Your task to perform on an android device: Is it going to rain this weekend? Image 0: 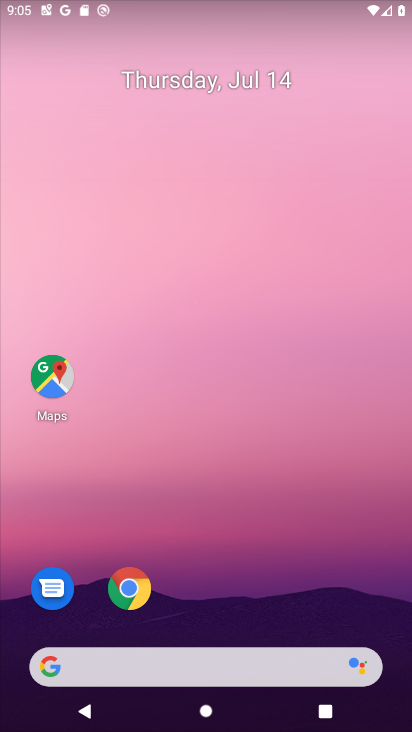
Step 0: drag from (254, 592) to (220, 230)
Your task to perform on an android device: Is it going to rain this weekend? Image 1: 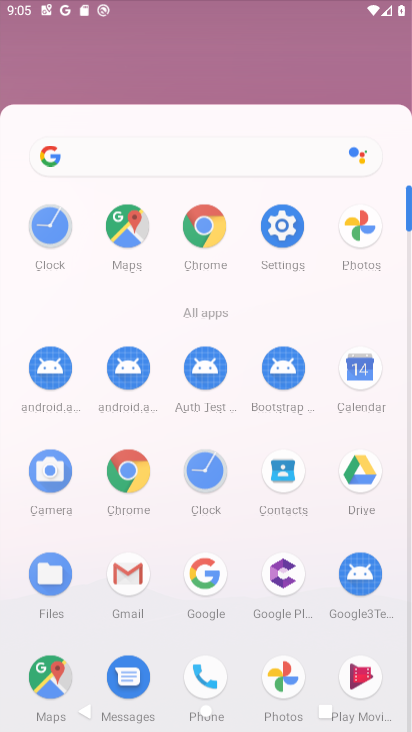
Step 1: drag from (252, 493) to (203, 144)
Your task to perform on an android device: Is it going to rain this weekend? Image 2: 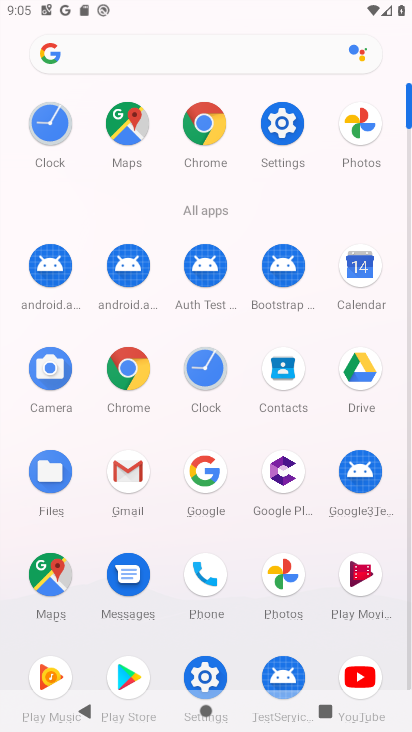
Step 2: click (210, 127)
Your task to perform on an android device: Is it going to rain this weekend? Image 3: 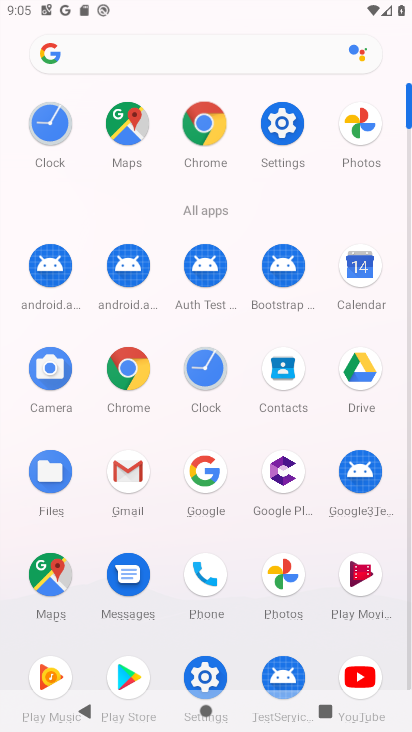
Step 3: click (209, 126)
Your task to perform on an android device: Is it going to rain this weekend? Image 4: 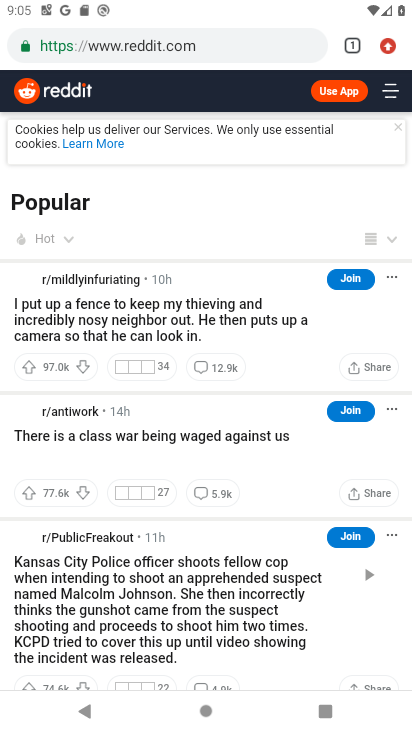
Step 4: click (130, 41)
Your task to perform on an android device: Is it going to rain this weekend? Image 5: 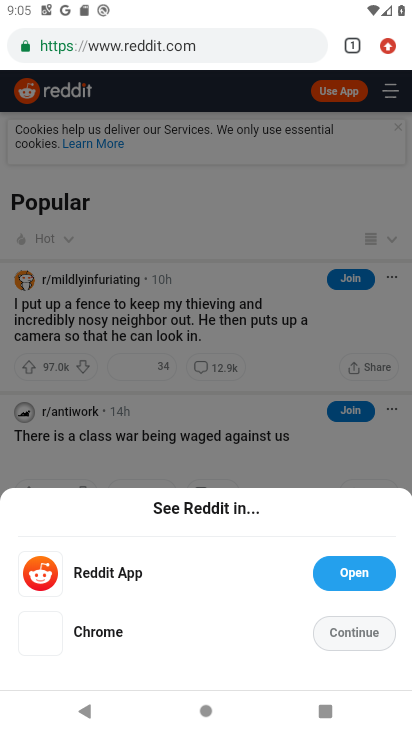
Step 5: click (130, 41)
Your task to perform on an android device: Is it going to rain this weekend? Image 6: 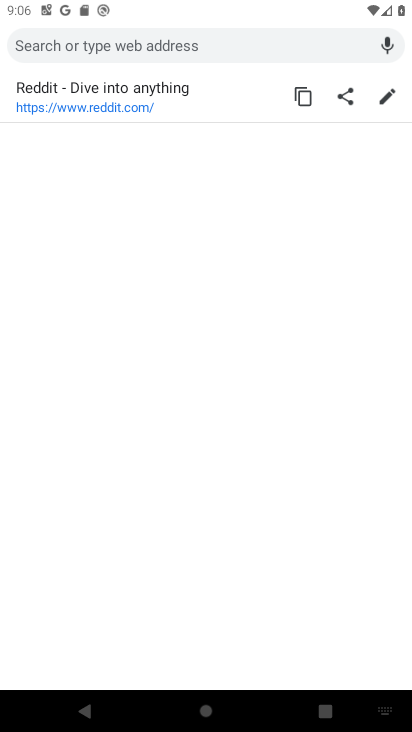
Step 6: type "is it going to rain this weekend"
Your task to perform on an android device: Is it going to rain this weekend? Image 7: 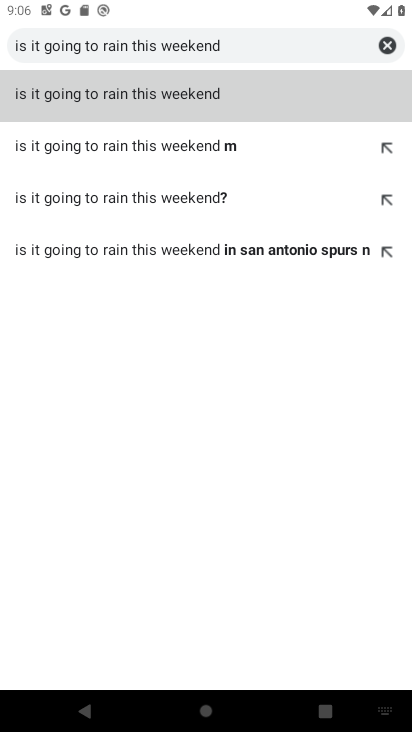
Step 7: click (165, 94)
Your task to perform on an android device: Is it going to rain this weekend? Image 8: 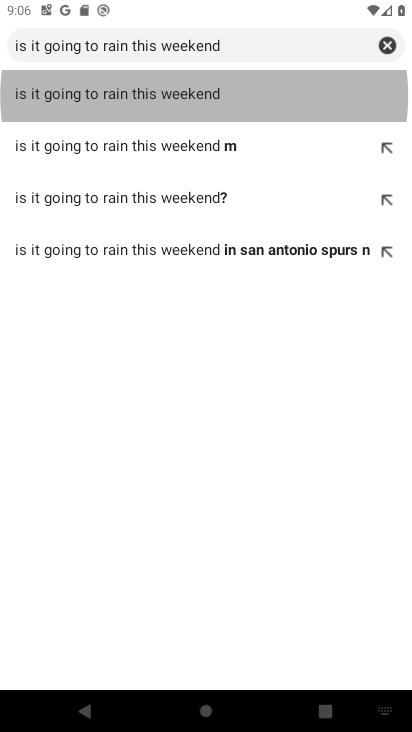
Step 8: click (163, 94)
Your task to perform on an android device: Is it going to rain this weekend? Image 9: 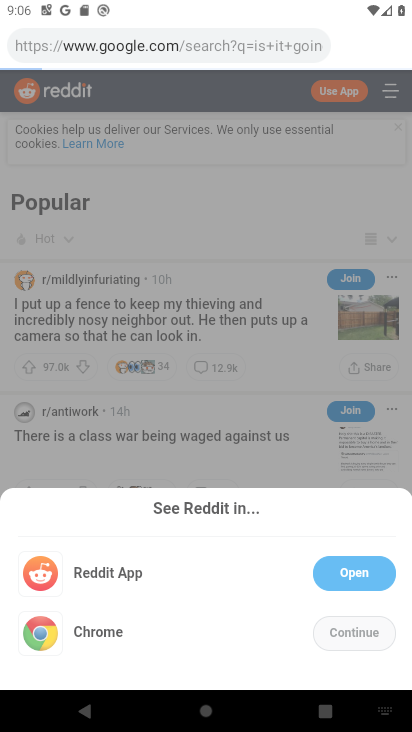
Step 9: click (162, 95)
Your task to perform on an android device: Is it going to rain this weekend? Image 10: 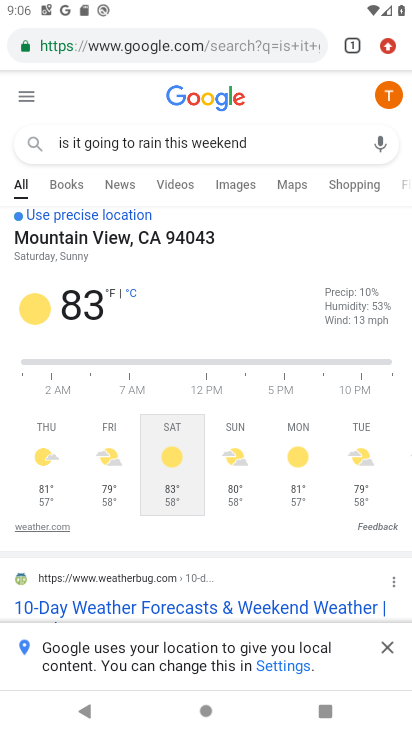
Step 10: task complete